Your task to perform on an android device: Show the shopping cart on costco. Search for razer thresher on costco, select the first entry, and add it to the cart. Image 0: 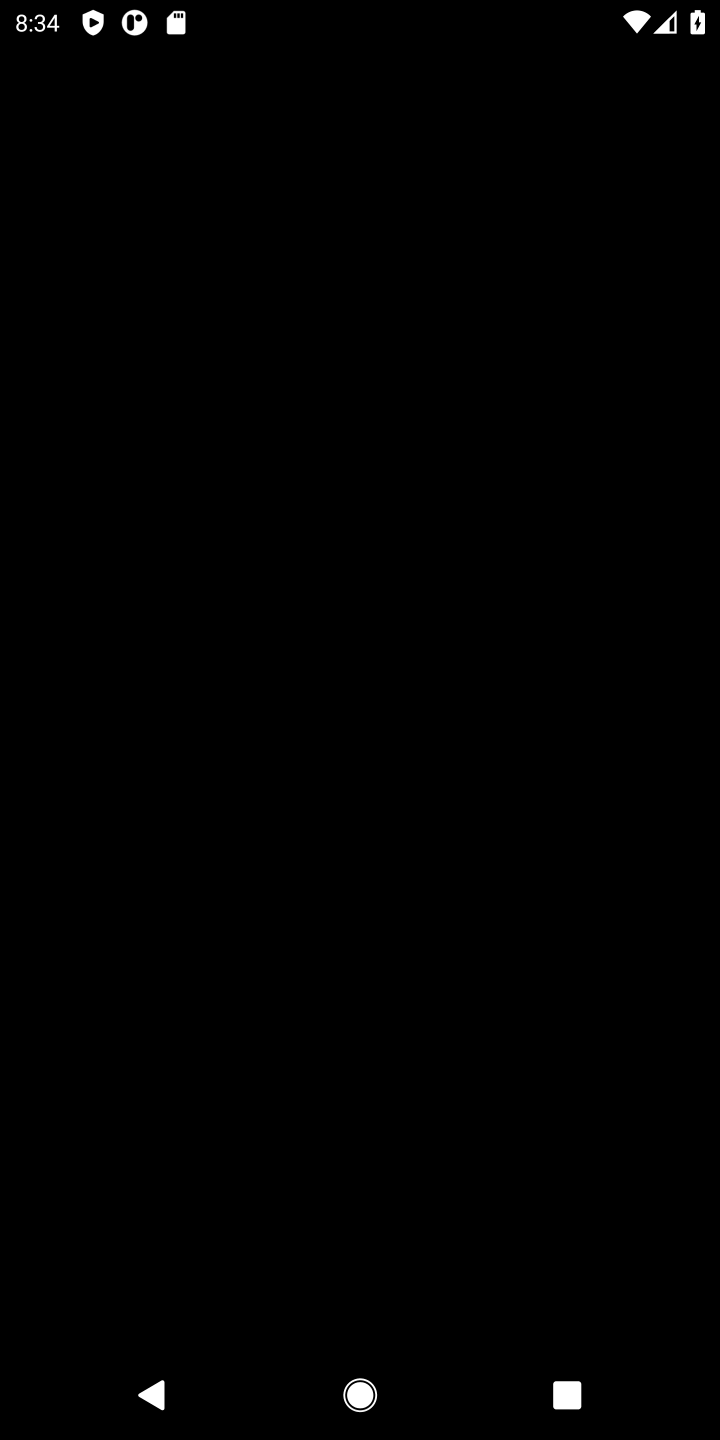
Step 0: press home button
Your task to perform on an android device: Show the shopping cart on costco. Search for razer thresher on costco, select the first entry, and add it to the cart. Image 1: 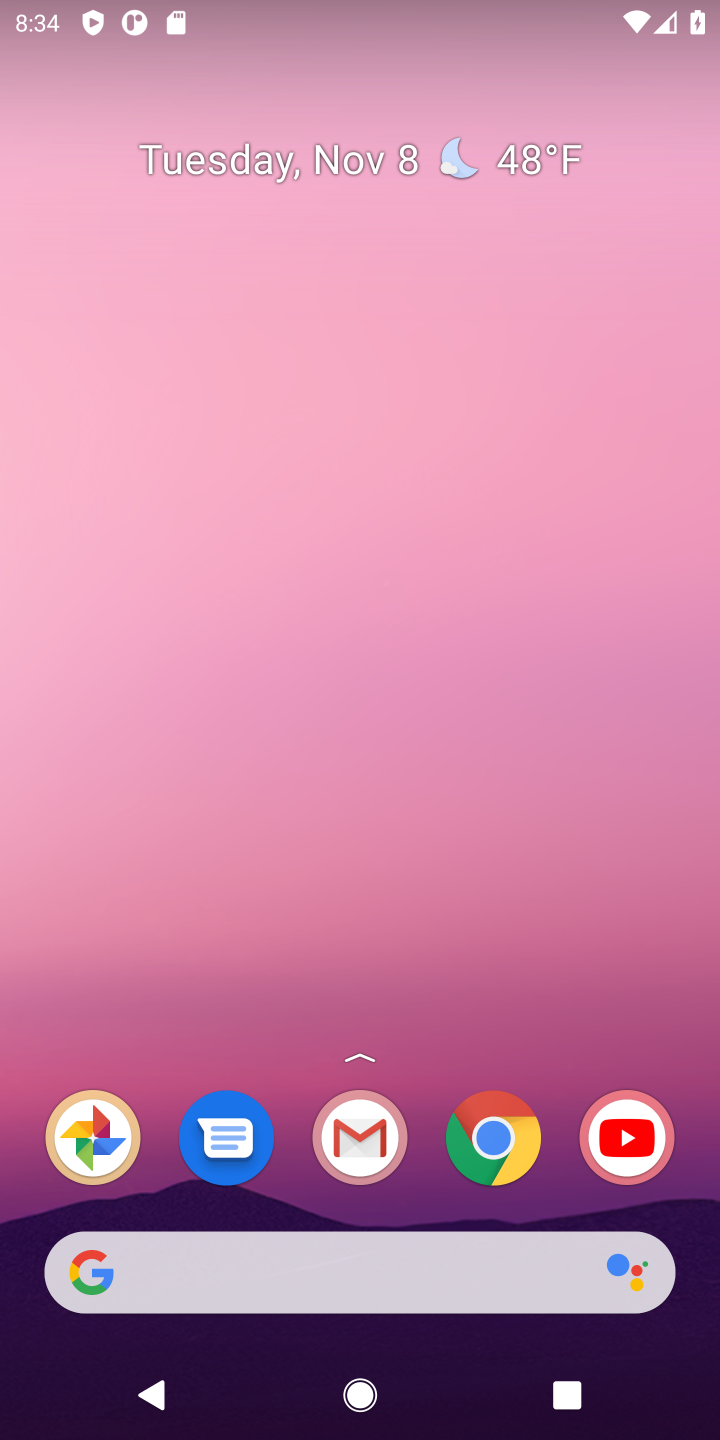
Step 1: click (487, 1148)
Your task to perform on an android device: Show the shopping cart on costco. Search for razer thresher on costco, select the first entry, and add it to the cart. Image 2: 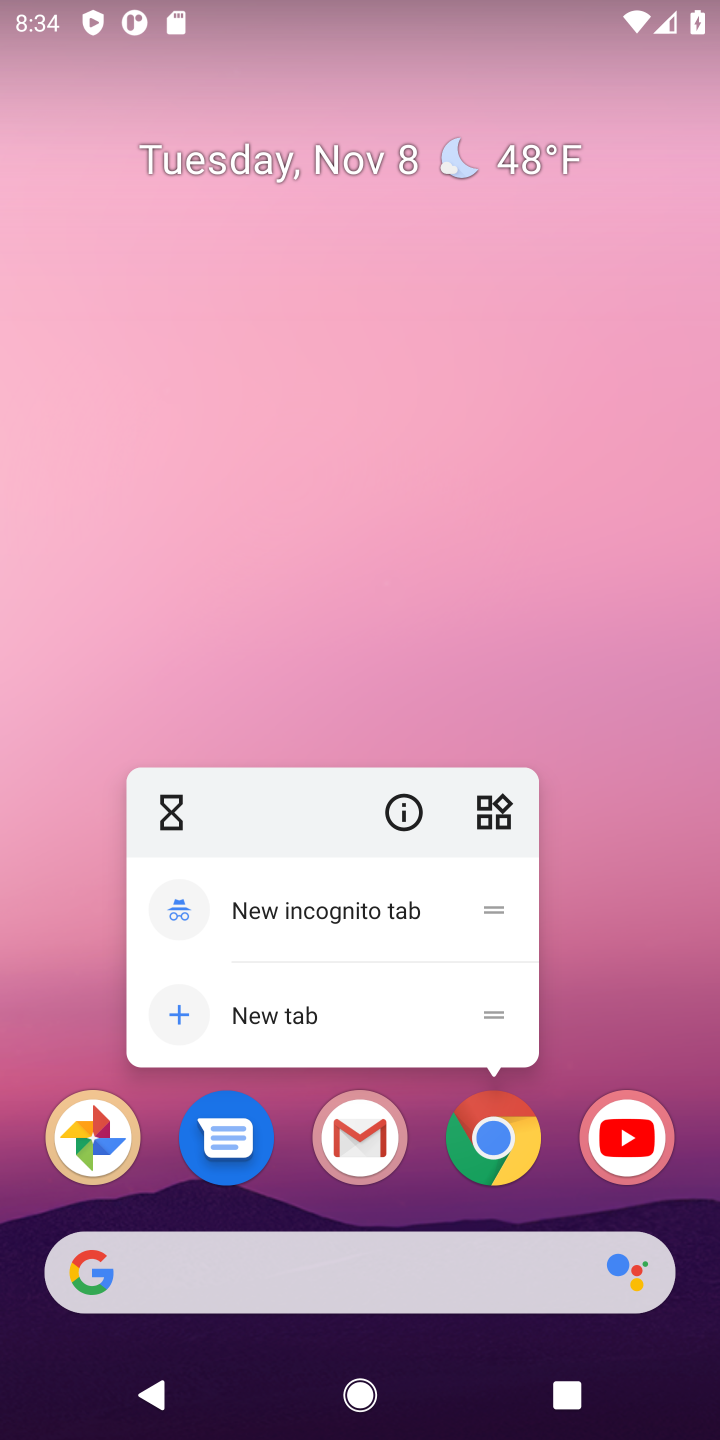
Step 2: click (506, 1137)
Your task to perform on an android device: Show the shopping cart on costco. Search for razer thresher on costco, select the first entry, and add it to the cart. Image 3: 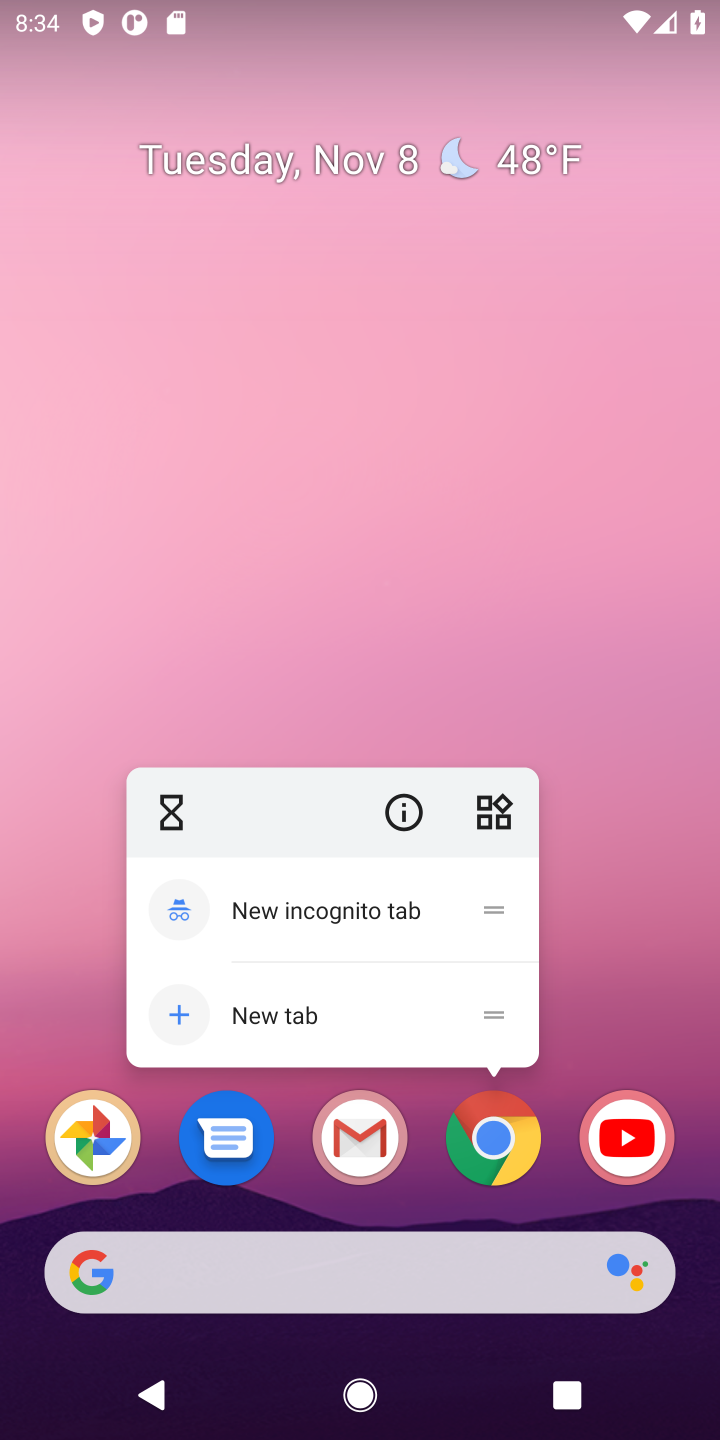
Step 3: click (494, 1142)
Your task to perform on an android device: Show the shopping cart on costco. Search for razer thresher on costco, select the first entry, and add it to the cart. Image 4: 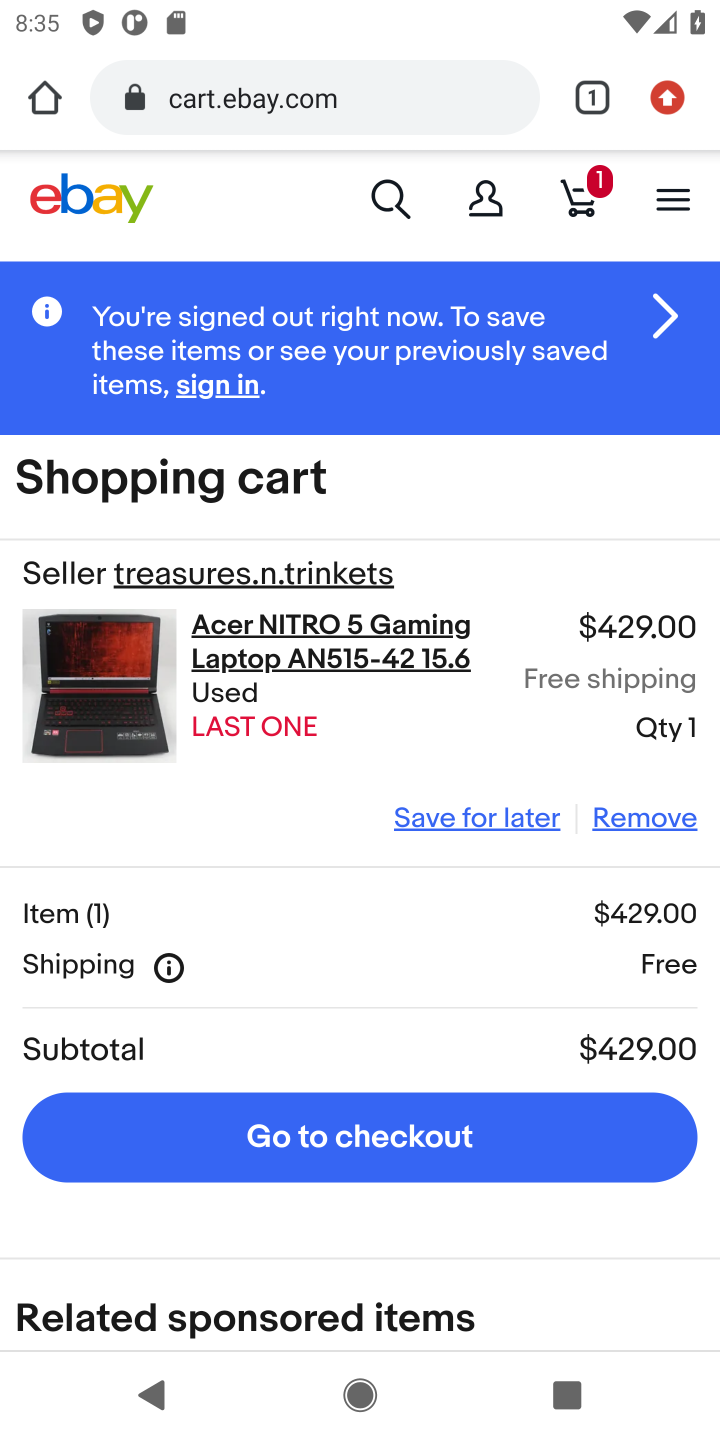
Step 4: click (348, 79)
Your task to perform on an android device: Show the shopping cart on costco. Search for razer thresher on costco, select the first entry, and add it to the cart. Image 5: 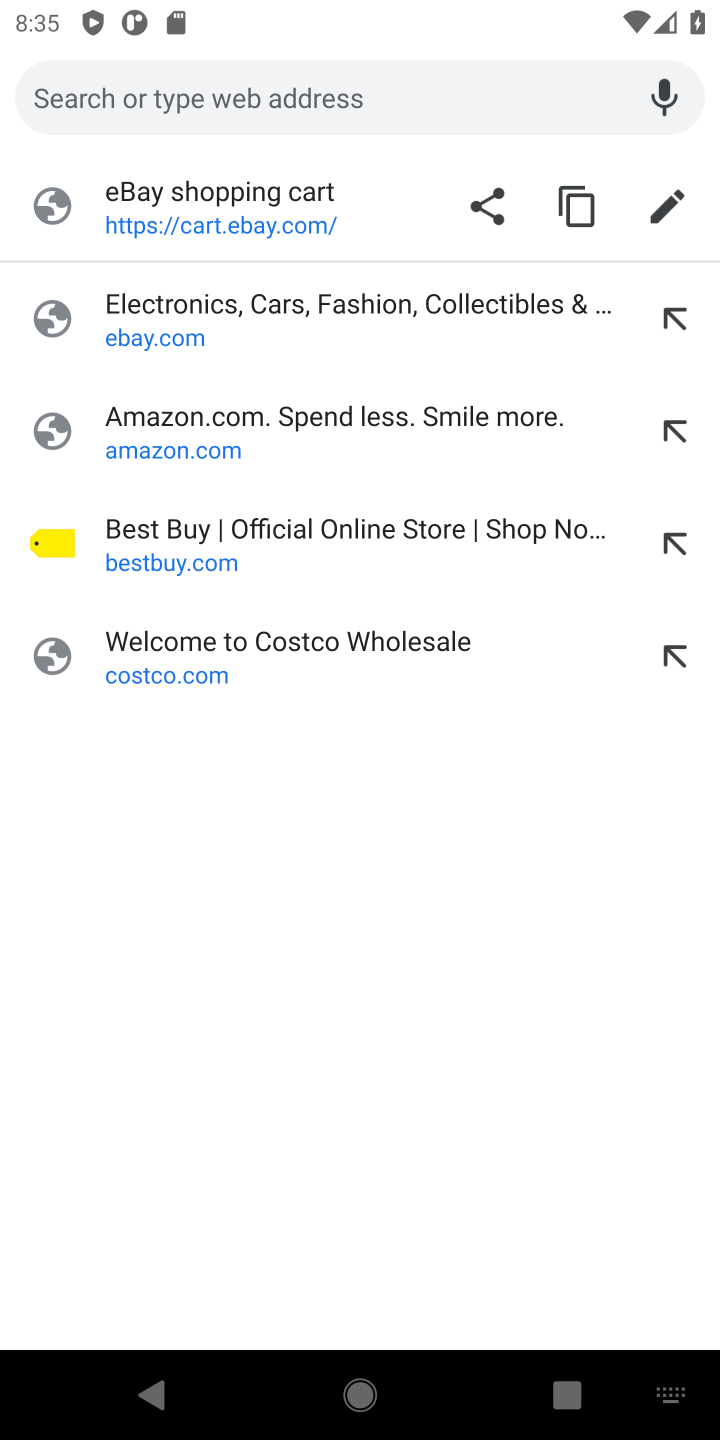
Step 5: click (149, 666)
Your task to perform on an android device: Show the shopping cart on costco. Search for razer thresher on costco, select the first entry, and add it to the cart. Image 6: 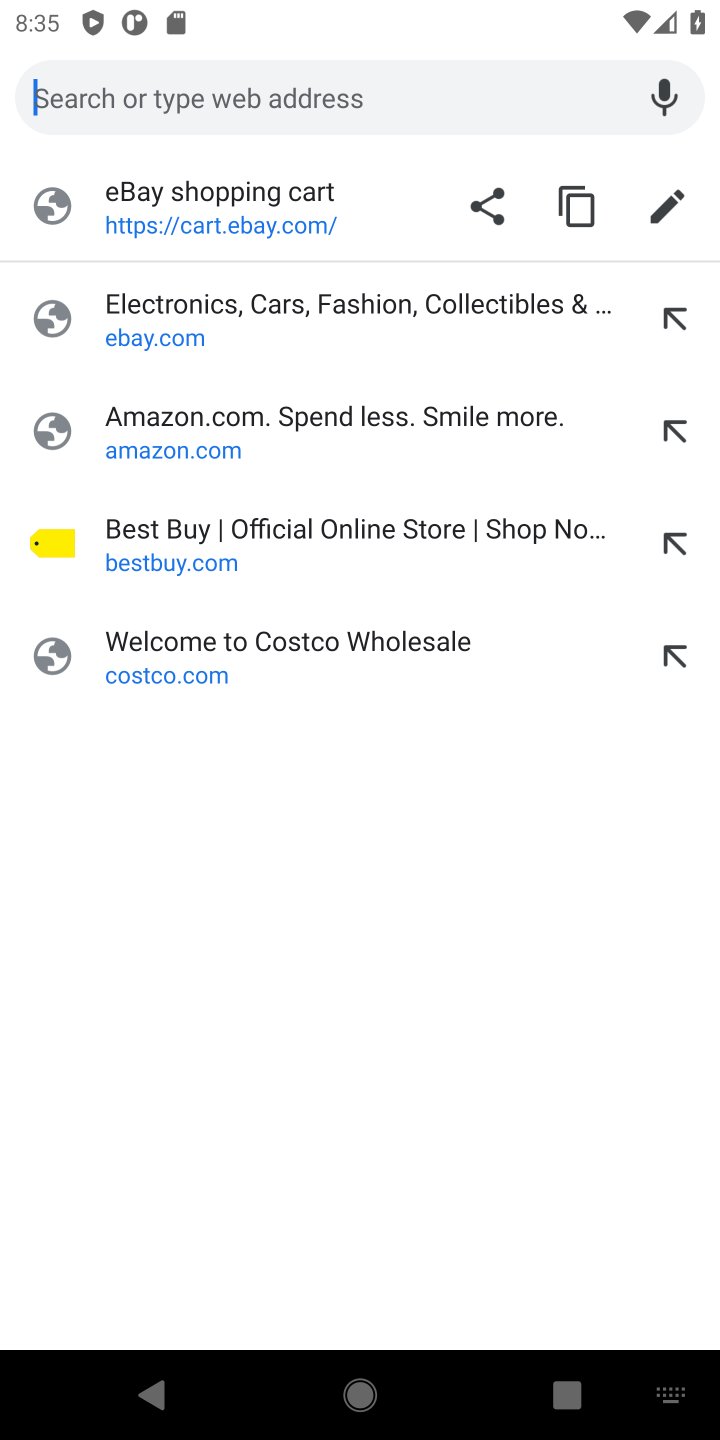
Step 6: click (149, 672)
Your task to perform on an android device: Show the shopping cart on costco. Search for razer thresher on costco, select the first entry, and add it to the cart. Image 7: 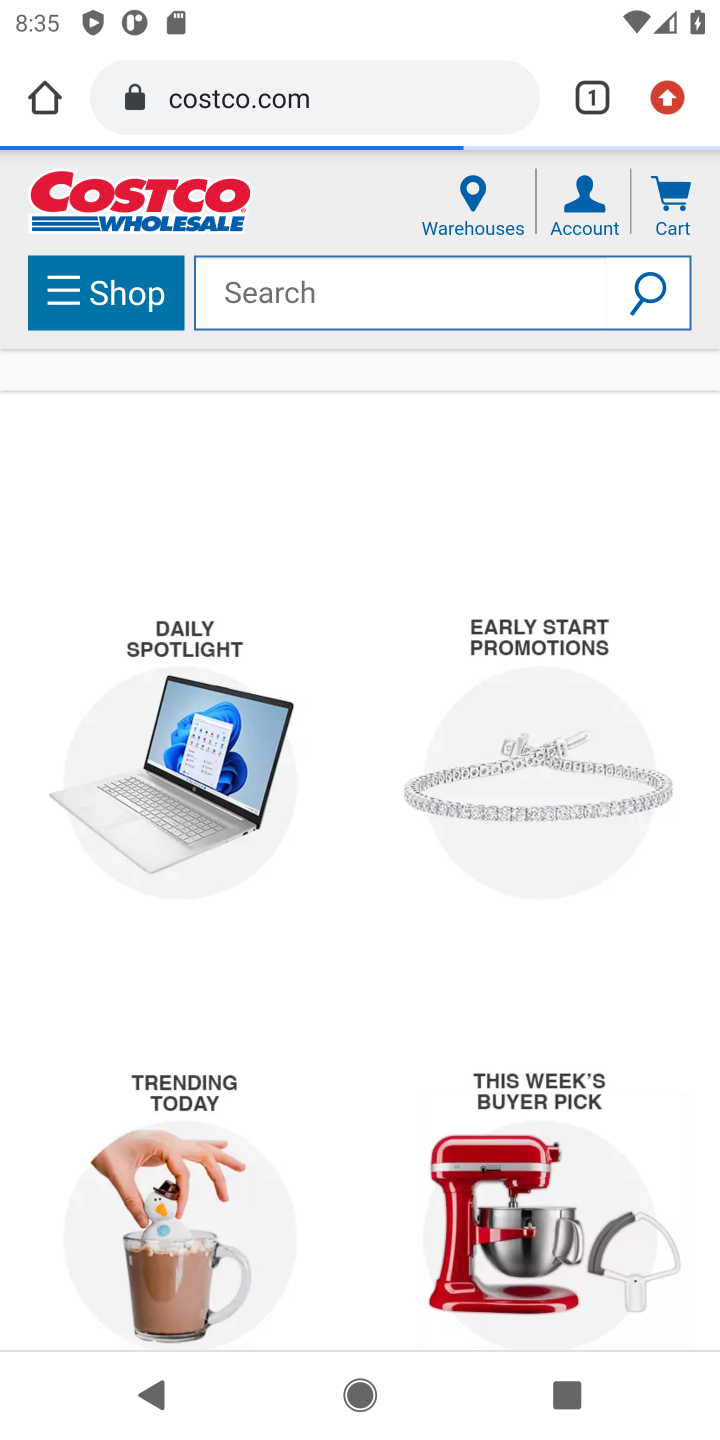
Step 7: click (345, 279)
Your task to perform on an android device: Show the shopping cart on costco. Search for razer thresher on costco, select the first entry, and add it to the cart. Image 8: 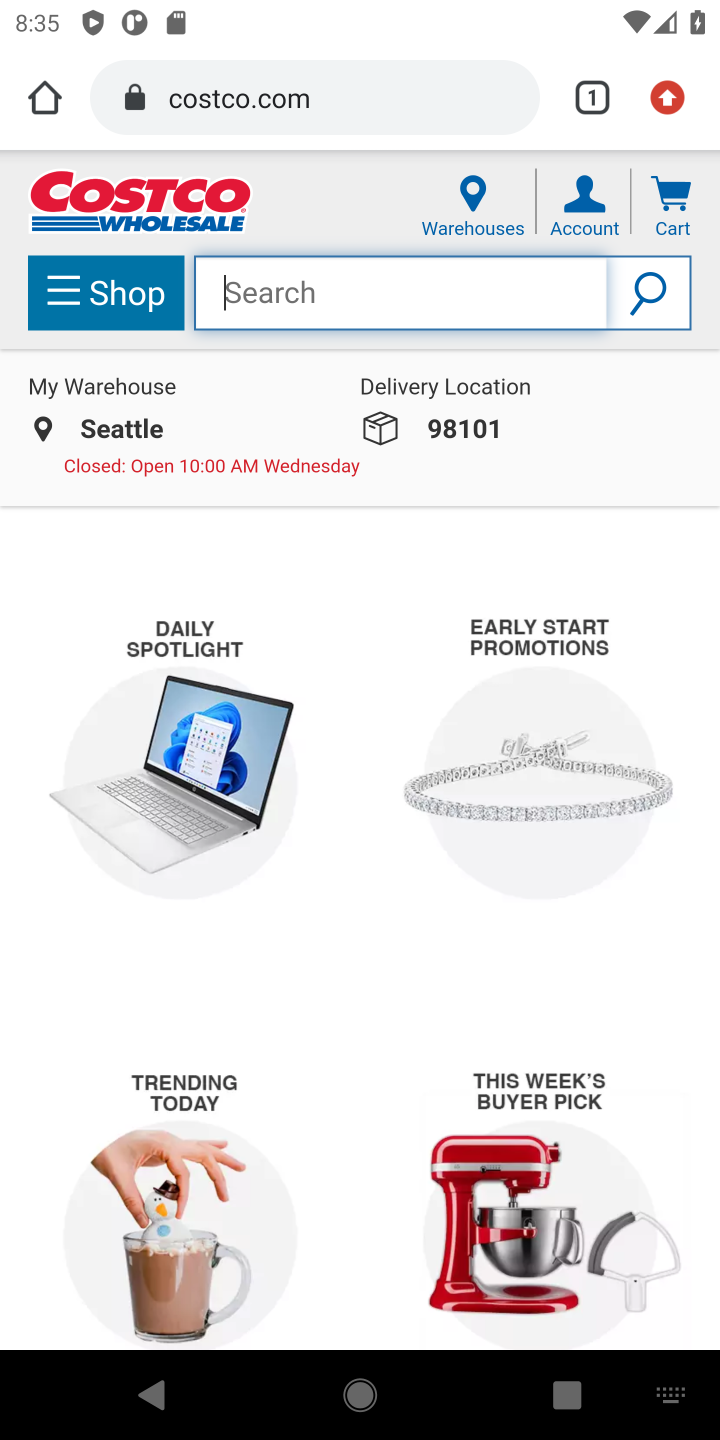
Step 8: press enter
Your task to perform on an android device: Show the shopping cart on costco. Search for razer thresher on costco, select the first entry, and add it to the cart. Image 9: 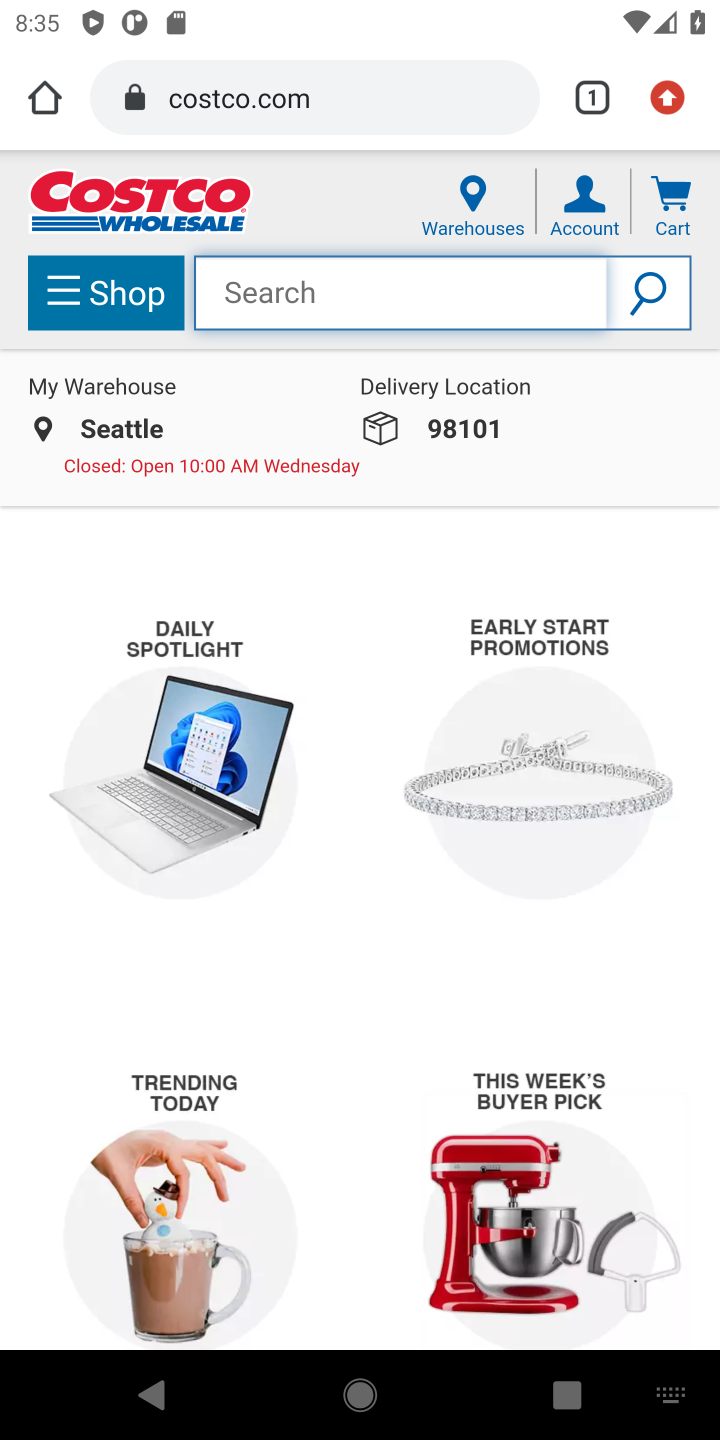
Step 9: type "razer thresher"
Your task to perform on an android device: Show the shopping cart on costco. Search for razer thresher on costco, select the first entry, and add it to the cart. Image 10: 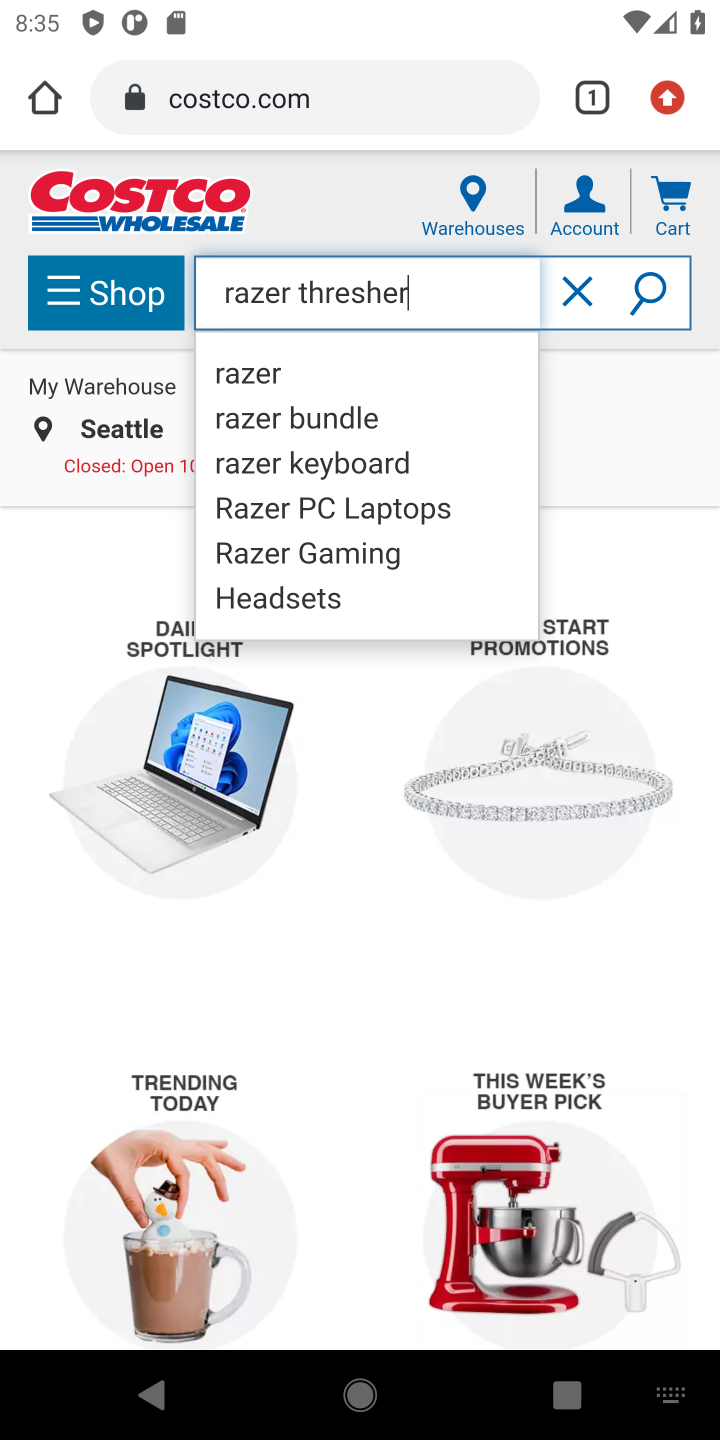
Step 10: press enter
Your task to perform on an android device: Show the shopping cart on costco. Search for razer thresher on costco, select the first entry, and add it to the cart. Image 11: 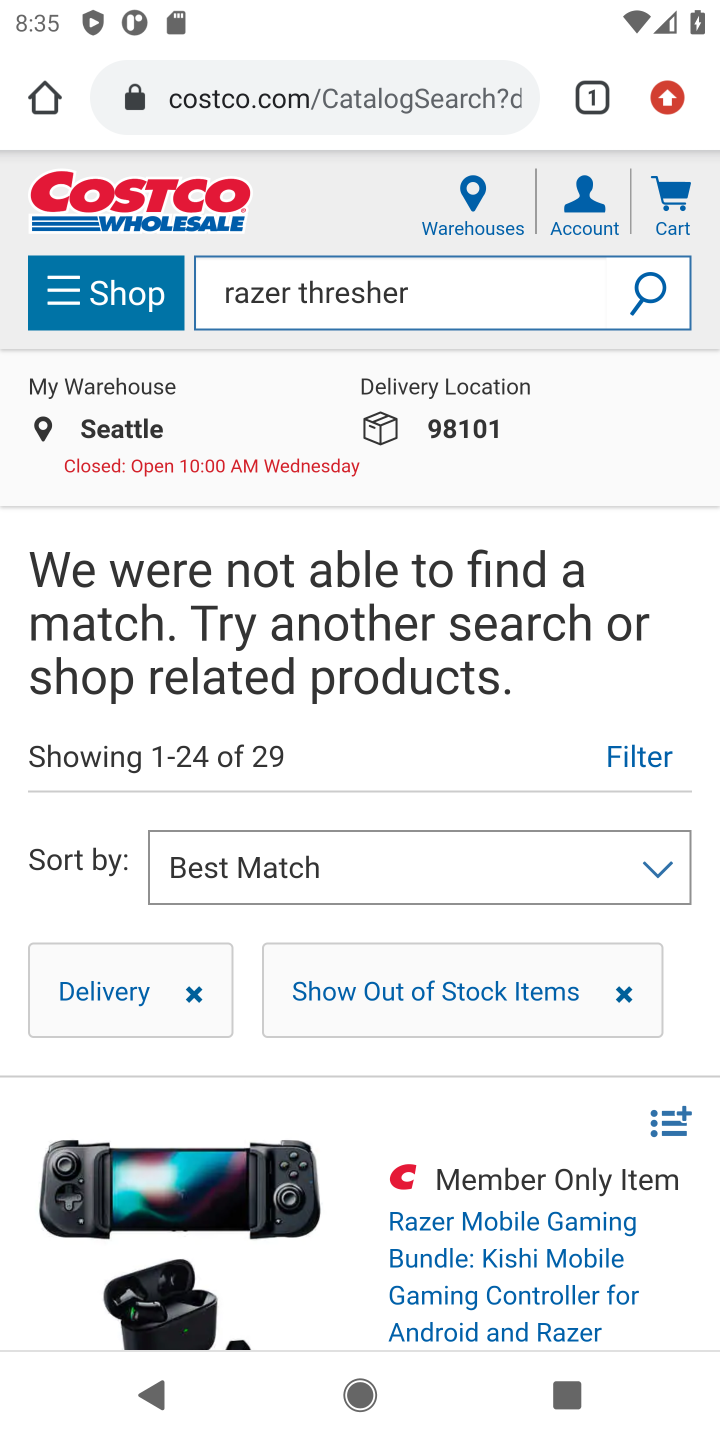
Step 11: task complete